Your task to perform on an android device: turn on notifications settings in the gmail app Image 0: 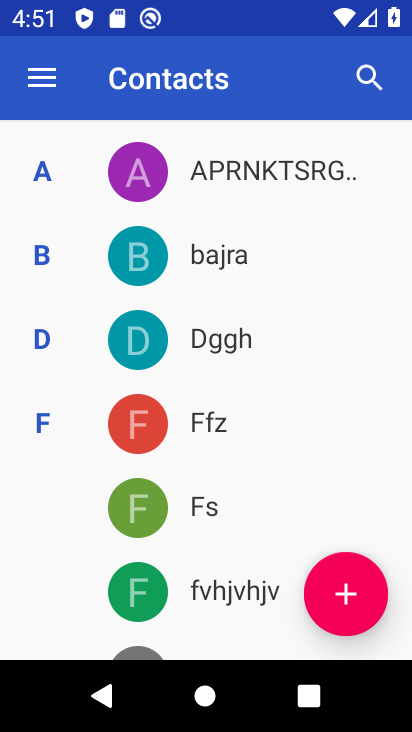
Step 0: press home button
Your task to perform on an android device: turn on notifications settings in the gmail app Image 1: 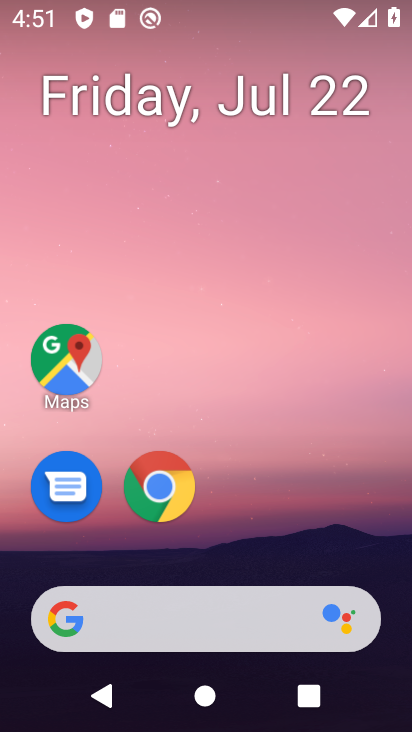
Step 1: drag from (349, 569) to (237, 51)
Your task to perform on an android device: turn on notifications settings in the gmail app Image 2: 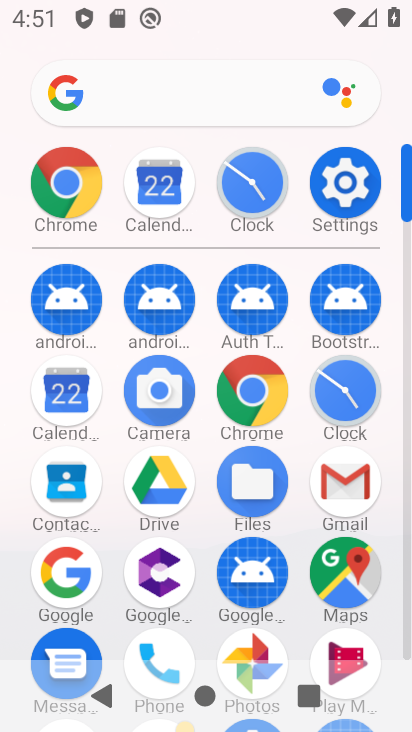
Step 2: click (358, 471)
Your task to perform on an android device: turn on notifications settings in the gmail app Image 3: 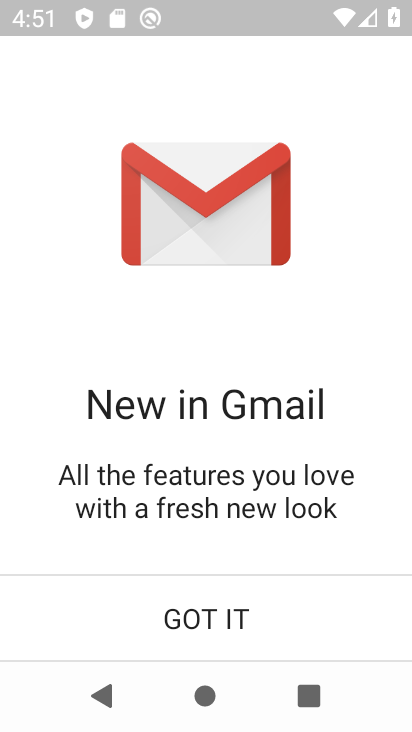
Step 3: click (243, 608)
Your task to perform on an android device: turn on notifications settings in the gmail app Image 4: 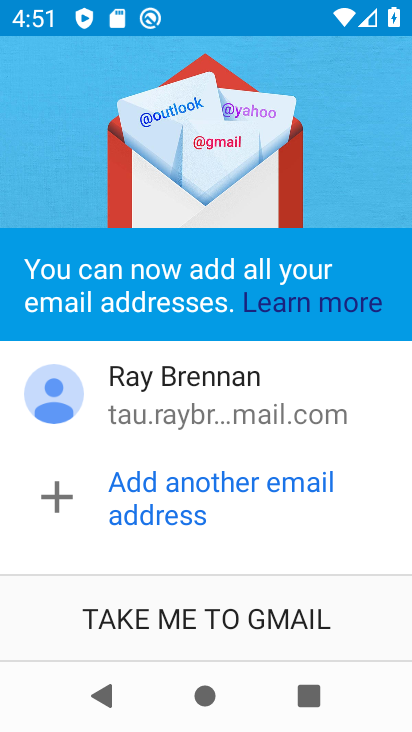
Step 4: click (246, 613)
Your task to perform on an android device: turn on notifications settings in the gmail app Image 5: 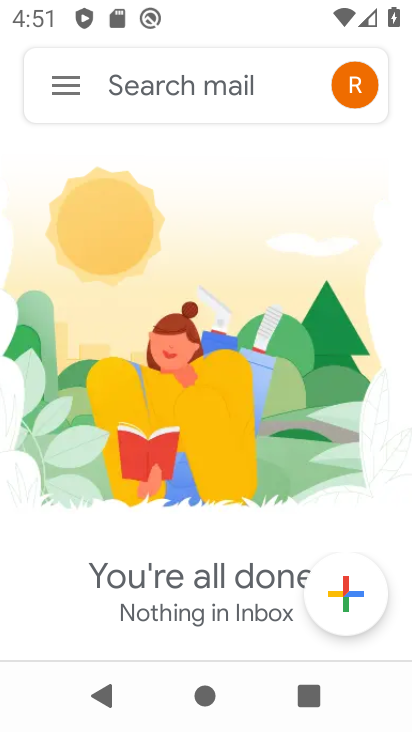
Step 5: click (68, 88)
Your task to perform on an android device: turn on notifications settings in the gmail app Image 6: 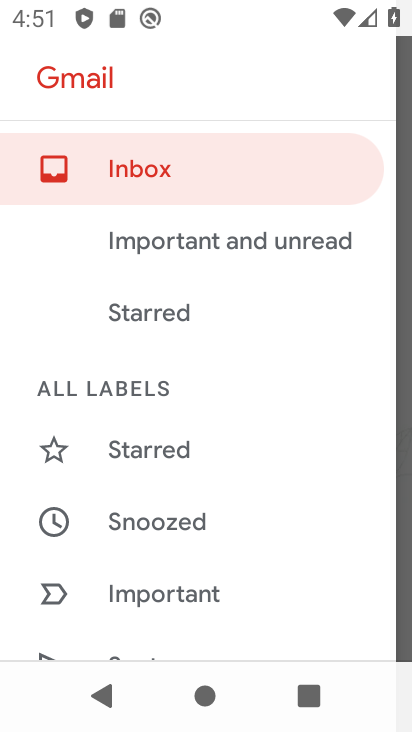
Step 6: drag from (308, 639) to (262, 58)
Your task to perform on an android device: turn on notifications settings in the gmail app Image 7: 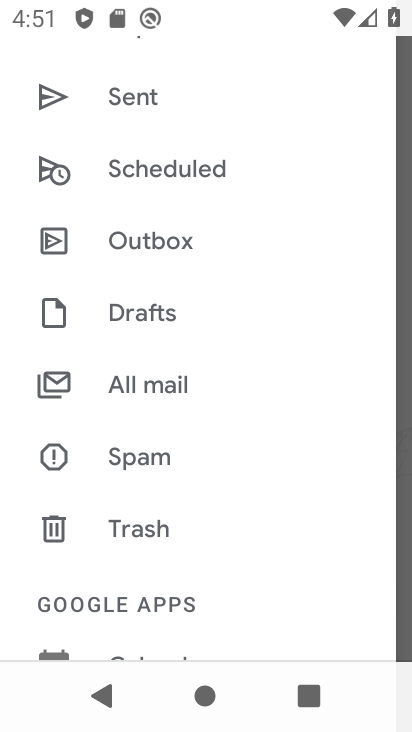
Step 7: drag from (265, 562) to (258, 172)
Your task to perform on an android device: turn on notifications settings in the gmail app Image 8: 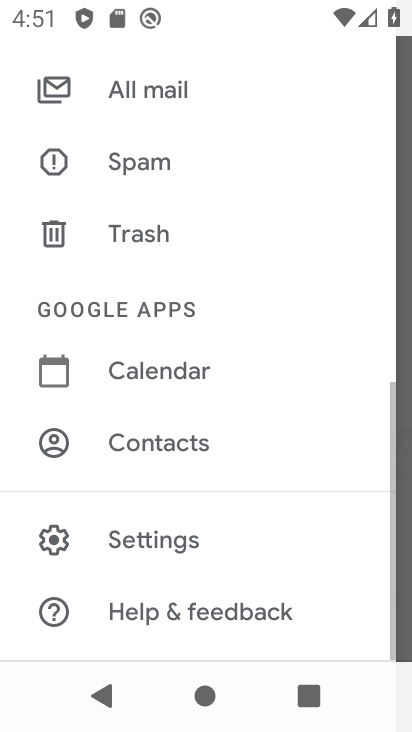
Step 8: click (218, 528)
Your task to perform on an android device: turn on notifications settings in the gmail app Image 9: 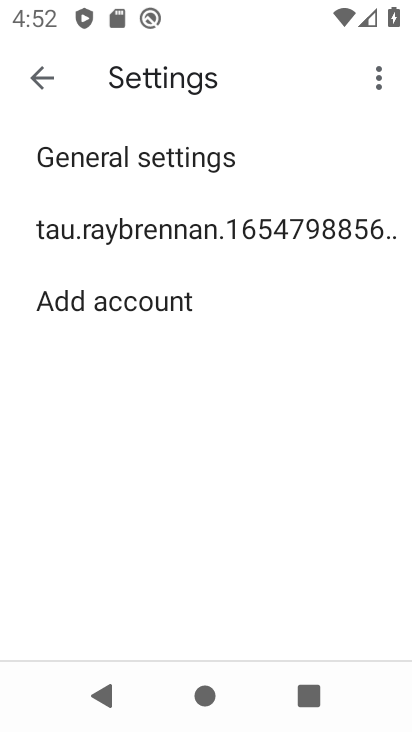
Step 9: click (237, 251)
Your task to perform on an android device: turn on notifications settings in the gmail app Image 10: 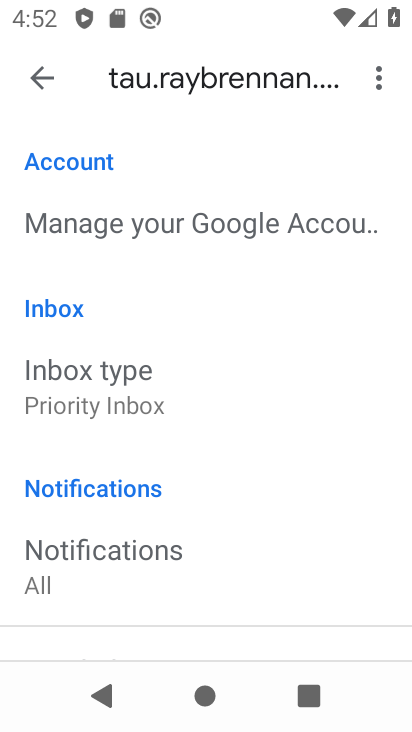
Step 10: drag from (238, 562) to (178, 91)
Your task to perform on an android device: turn on notifications settings in the gmail app Image 11: 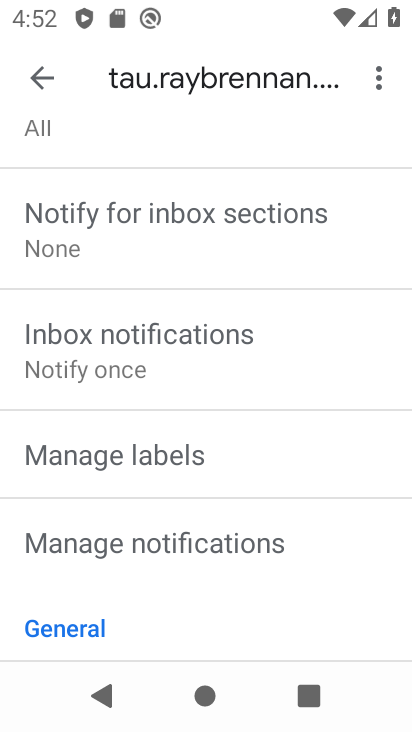
Step 11: click (183, 523)
Your task to perform on an android device: turn on notifications settings in the gmail app Image 12: 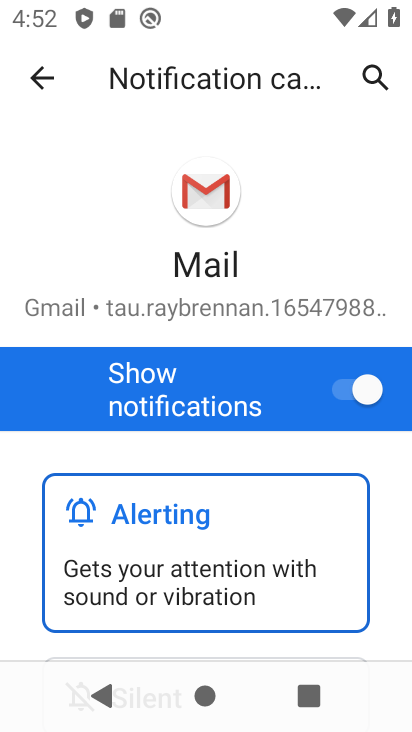
Step 12: task complete